Your task to perform on an android device: delete browsing data in the chrome app Image 0: 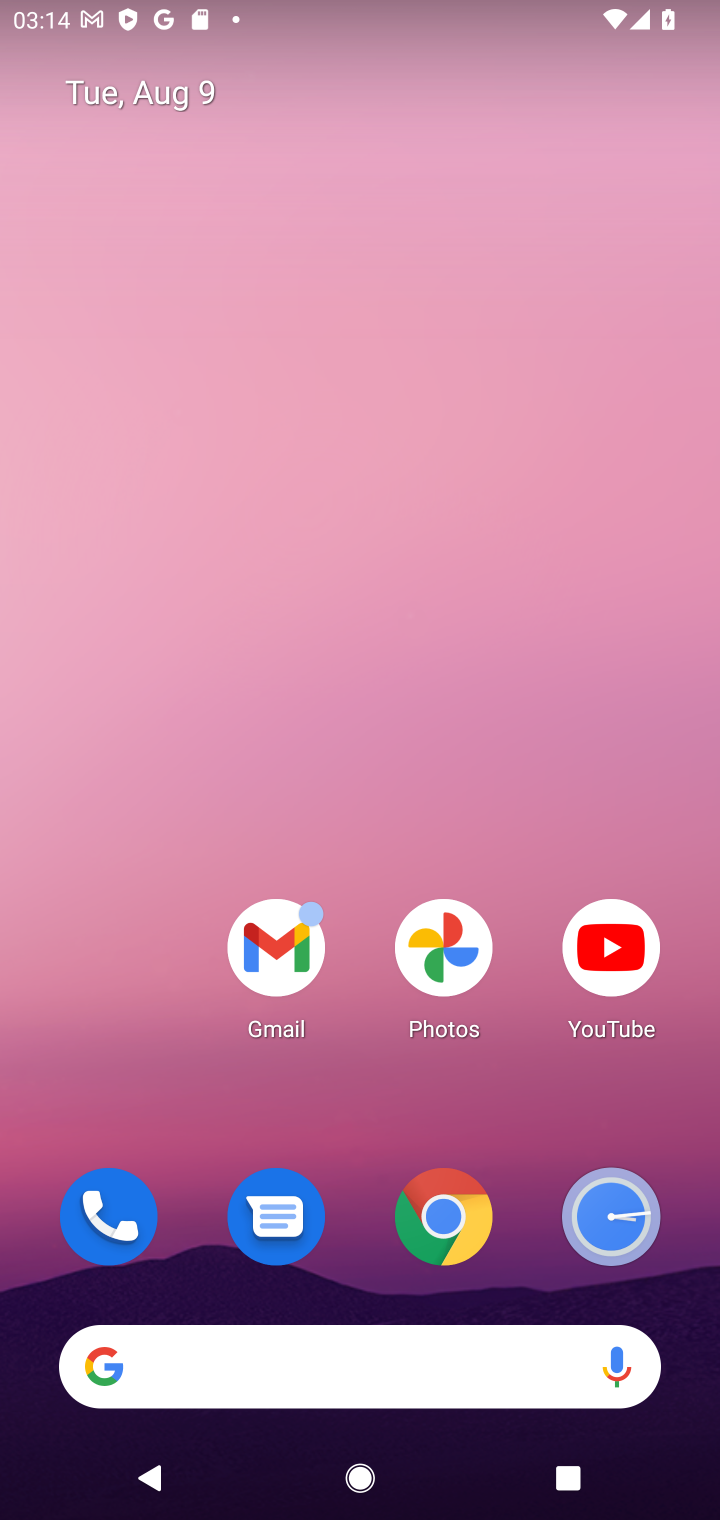
Step 0: click (462, 1236)
Your task to perform on an android device: delete browsing data in the chrome app Image 1: 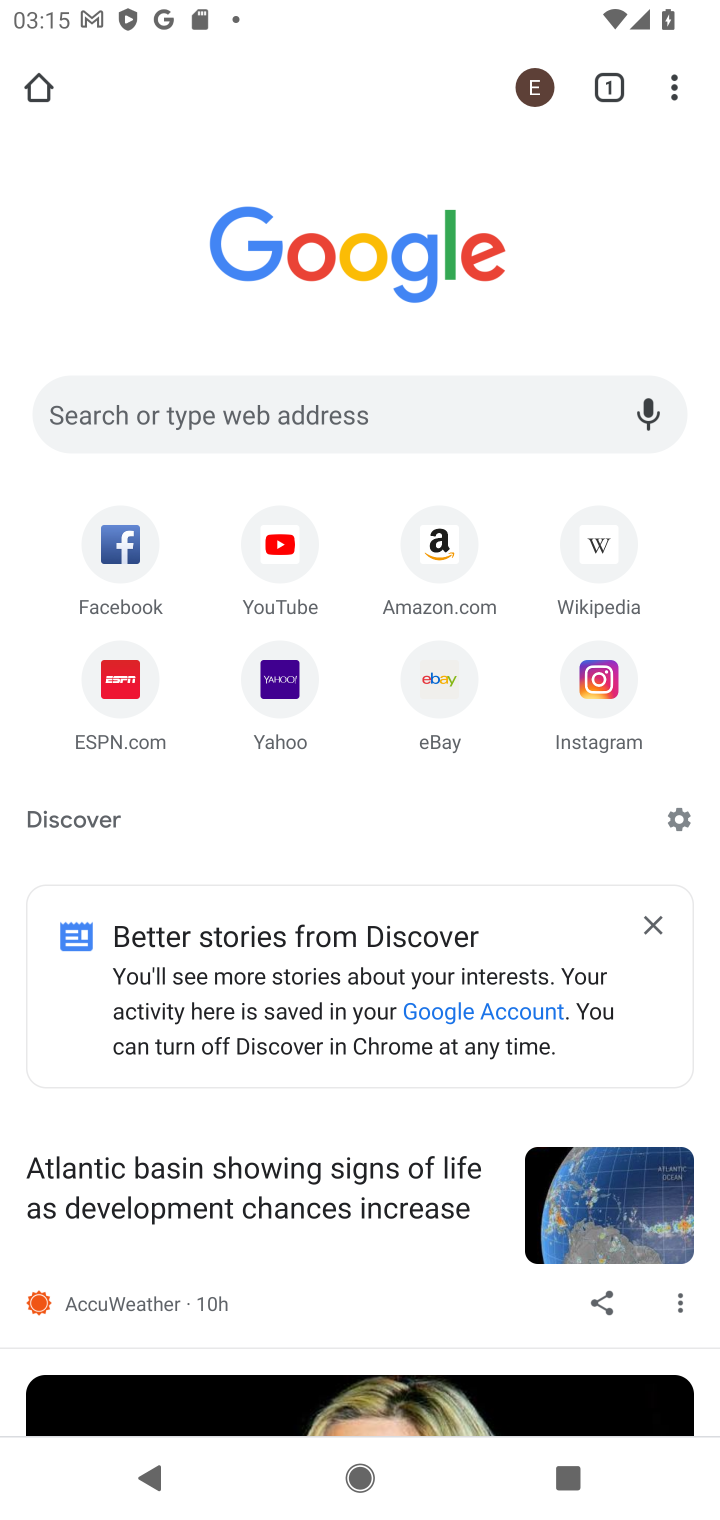
Step 1: click (690, 77)
Your task to perform on an android device: delete browsing data in the chrome app Image 2: 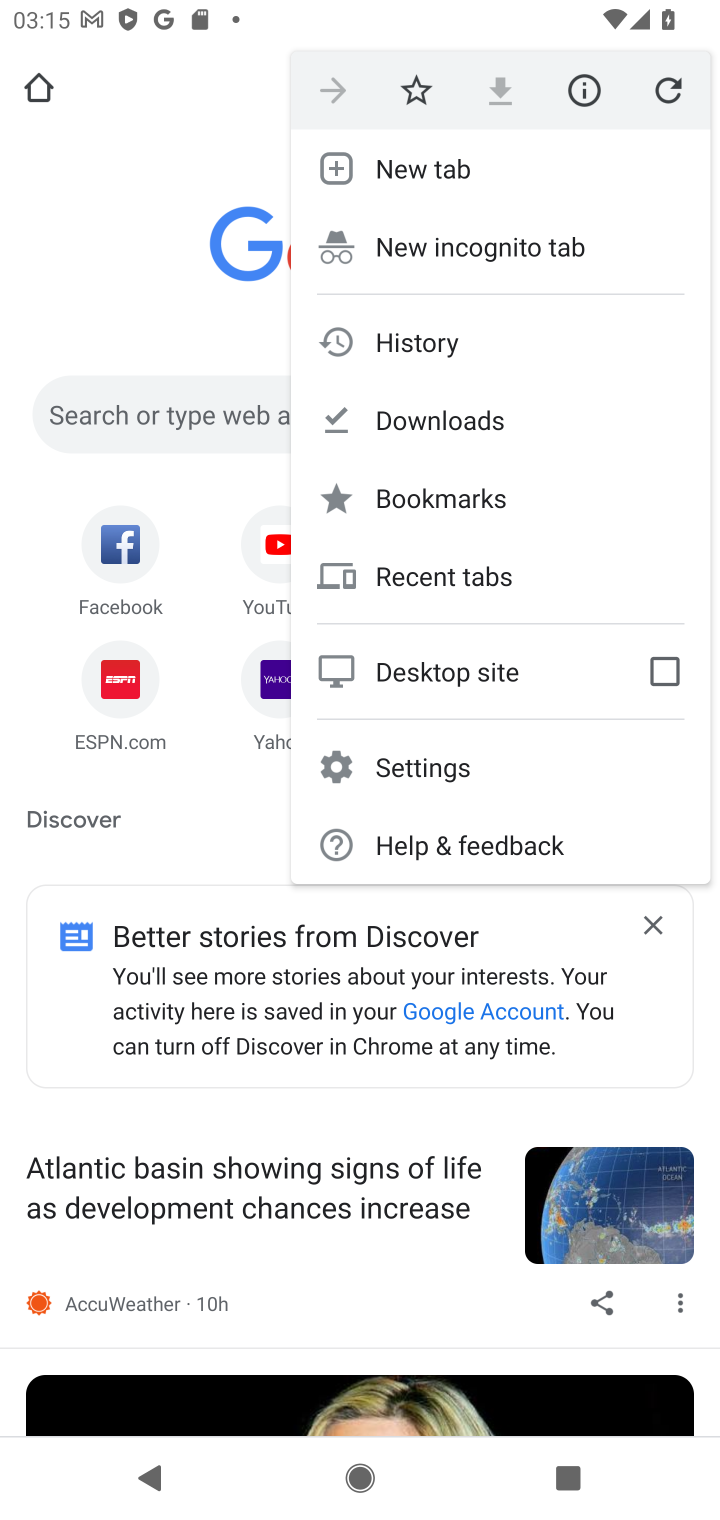
Step 2: click (451, 353)
Your task to perform on an android device: delete browsing data in the chrome app Image 3: 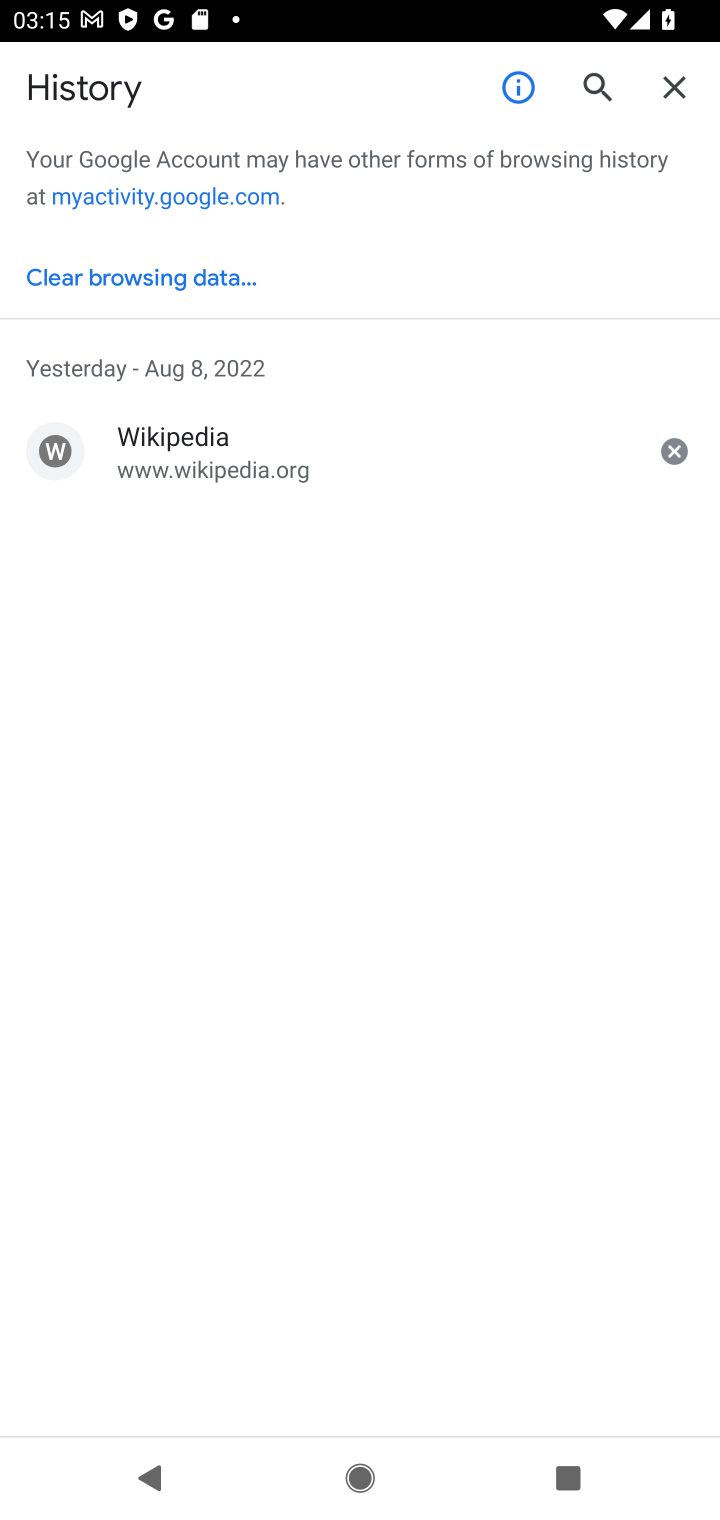
Step 3: click (194, 282)
Your task to perform on an android device: delete browsing data in the chrome app Image 4: 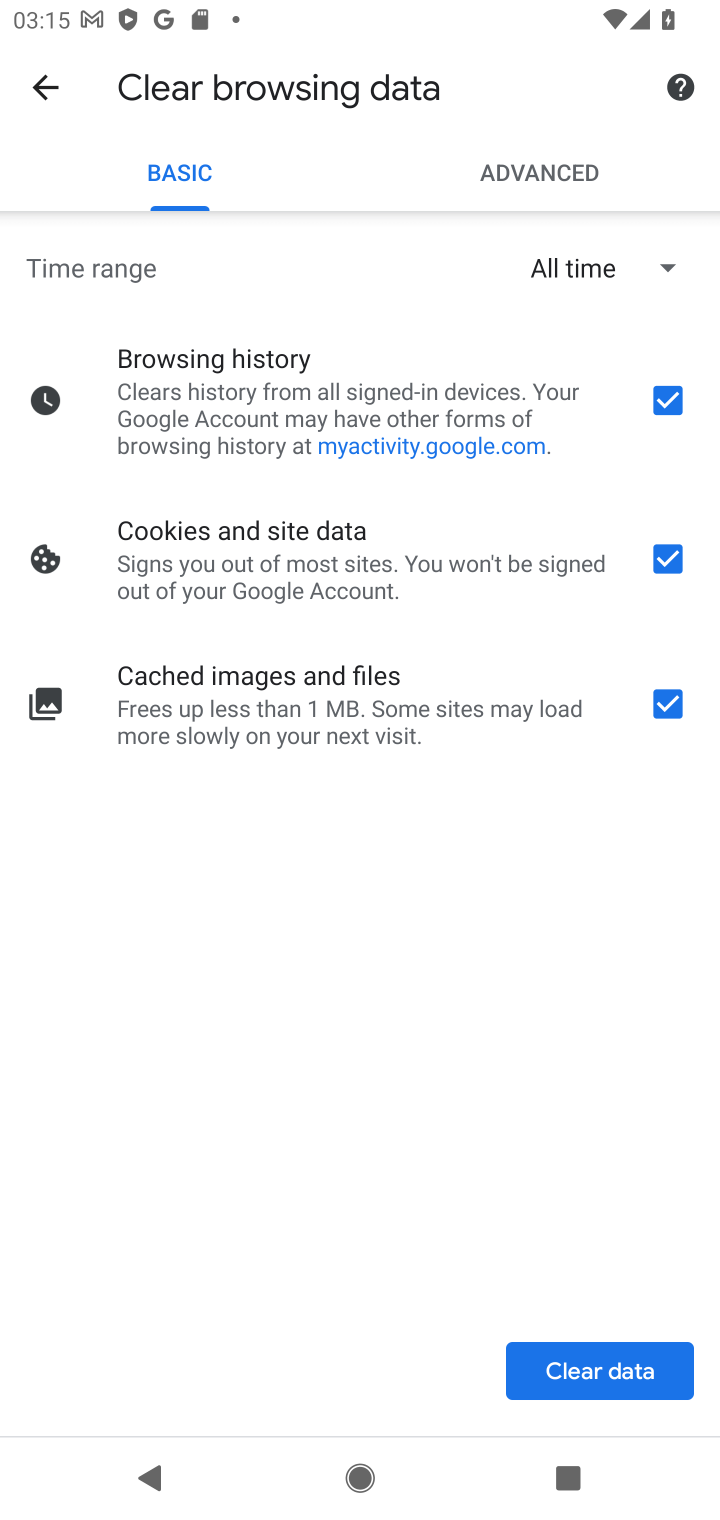
Step 4: click (640, 1374)
Your task to perform on an android device: delete browsing data in the chrome app Image 5: 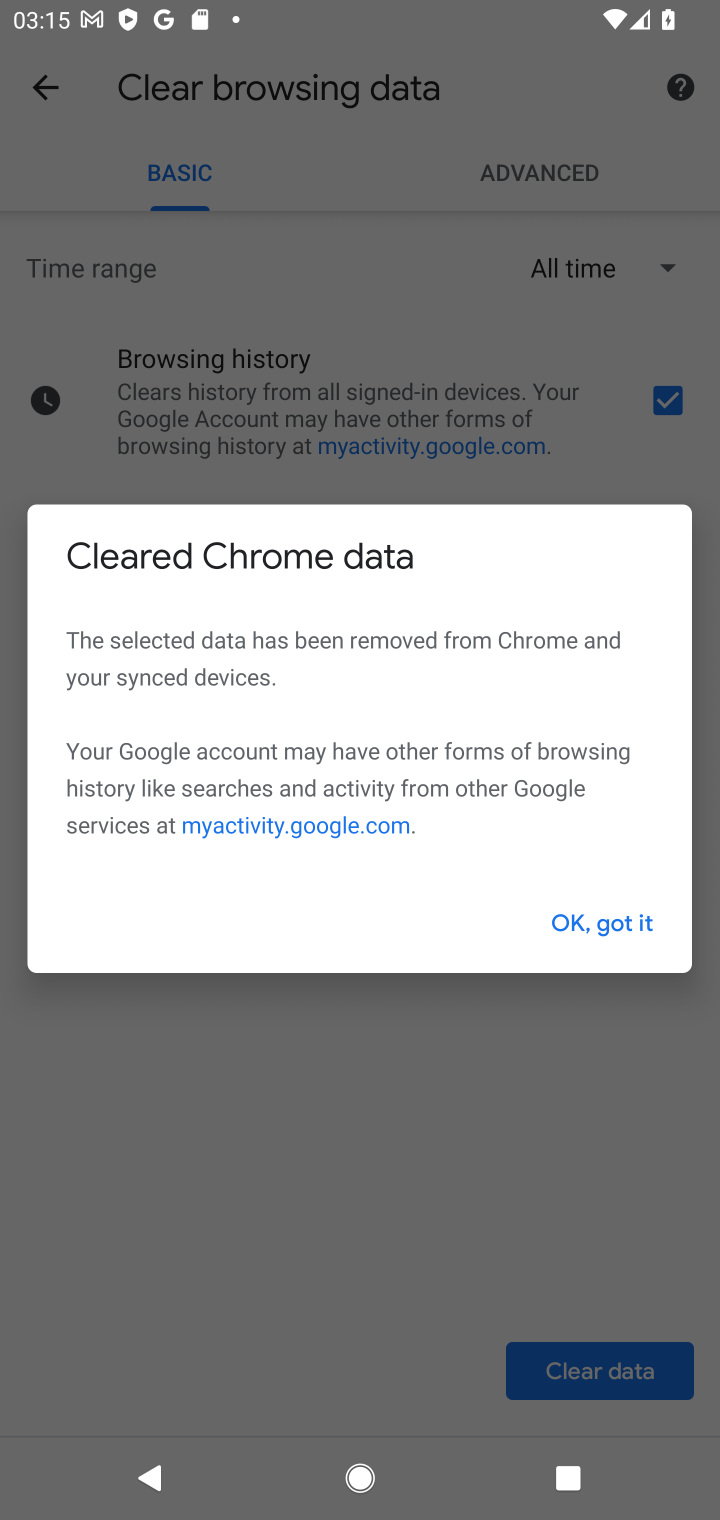
Step 5: click (606, 913)
Your task to perform on an android device: delete browsing data in the chrome app Image 6: 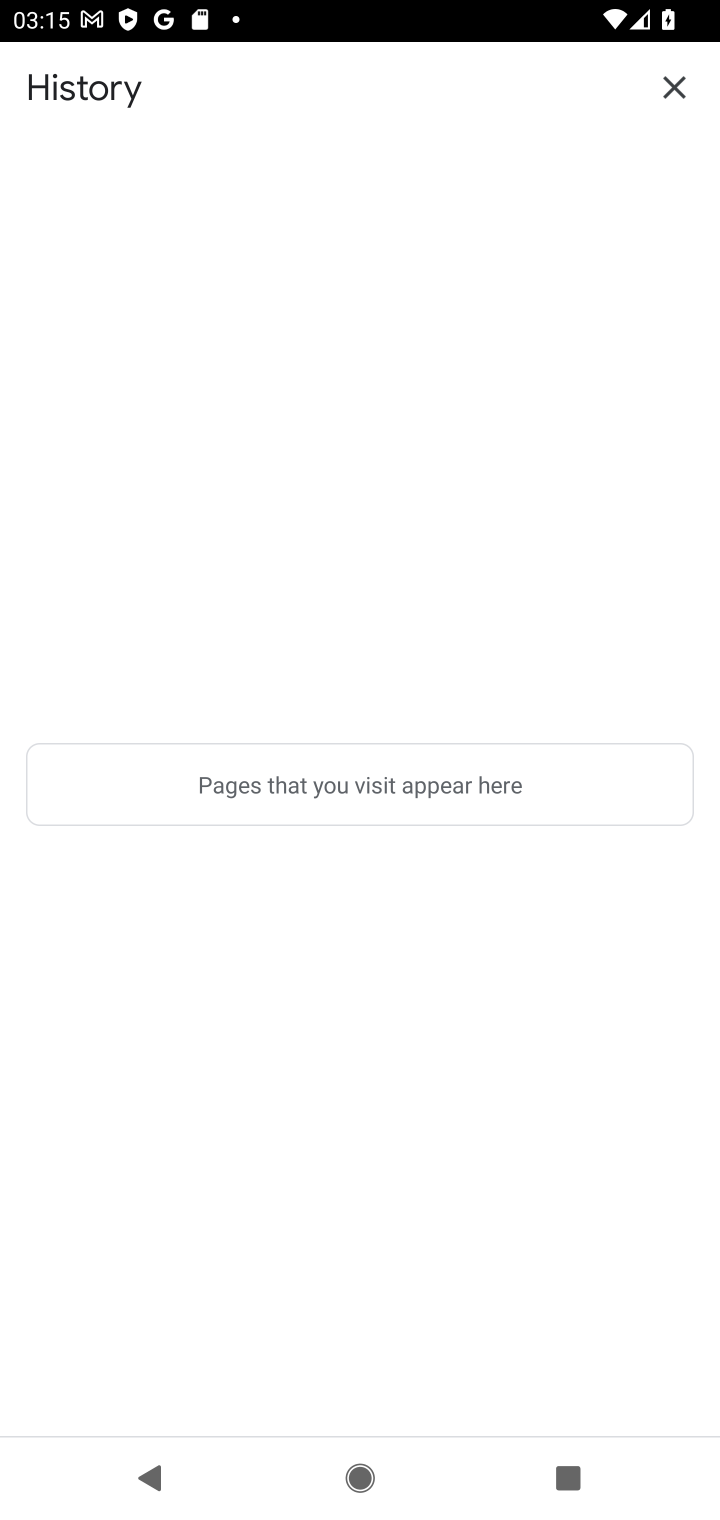
Step 6: task complete